Your task to perform on an android device: turn off airplane mode Image 0: 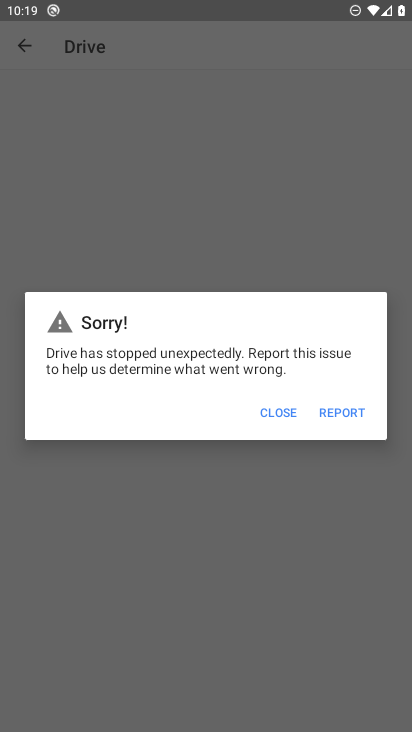
Step 0: press home button
Your task to perform on an android device: turn off airplane mode Image 1: 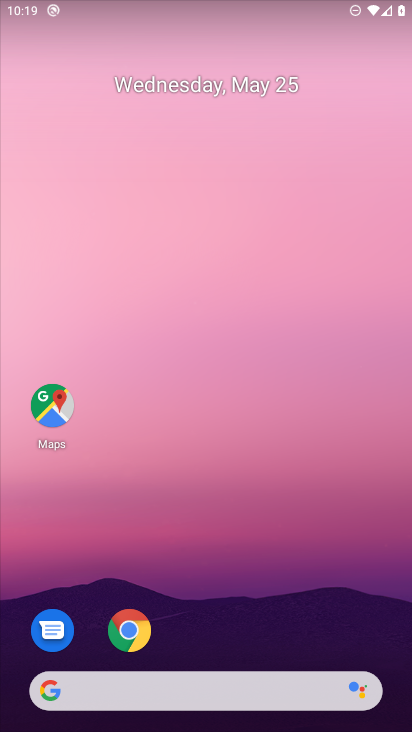
Step 1: drag from (189, 671) to (189, 150)
Your task to perform on an android device: turn off airplane mode Image 2: 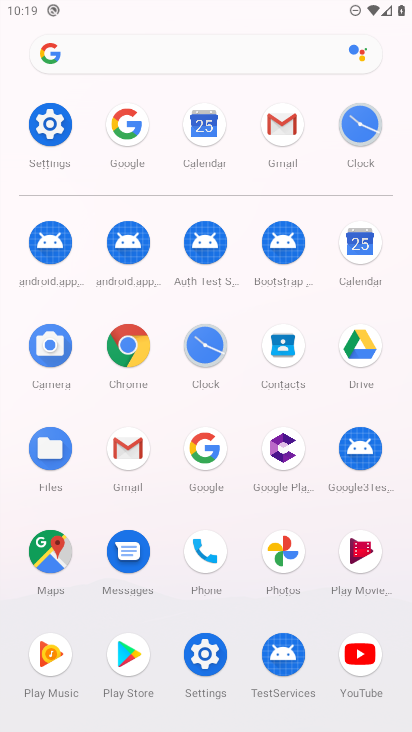
Step 2: click (41, 122)
Your task to perform on an android device: turn off airplane mode Image 3: 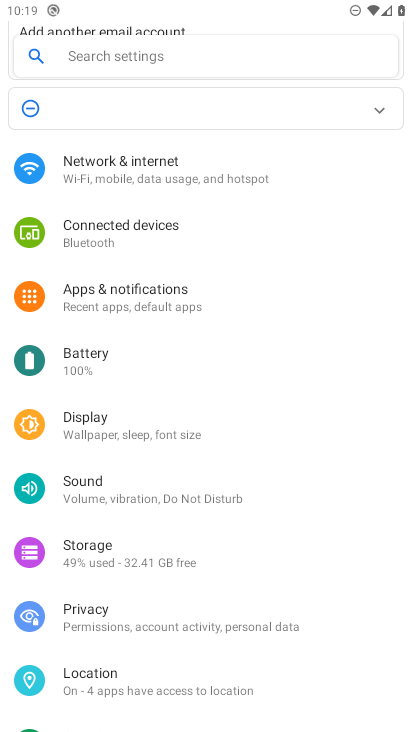
Step 3: click (130, 180)
Your task to perform on an android device: turn off airplane mode Image 4: 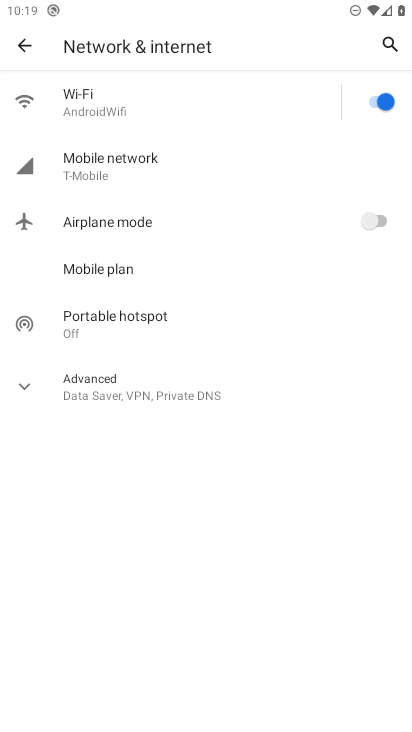
Step 4: task complete